Your task to perform on an android device: add a contact in the contacts app Image 0: 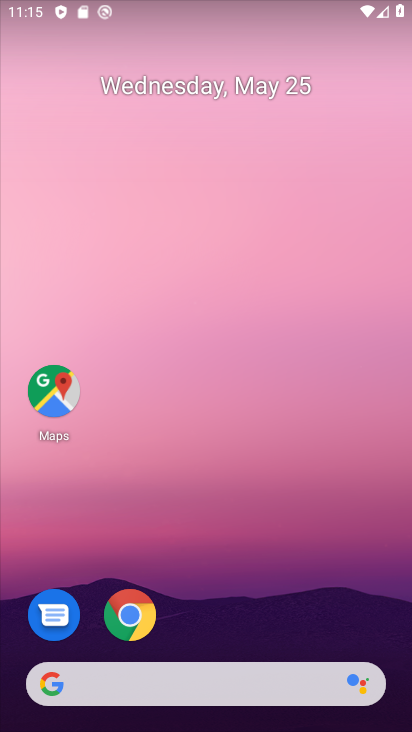
Step 0: drag from (221, 599) to (184, 29)
Your task to perform on an android device: add a contact in the contacts app Image 1: 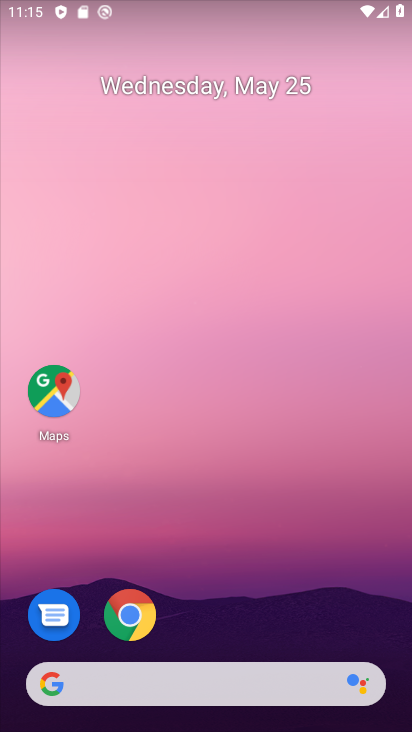
Step 1: drag from (185, 559) to (201, 0)
Your task to perform on an android device: add a contact in the contacts app Image 2: 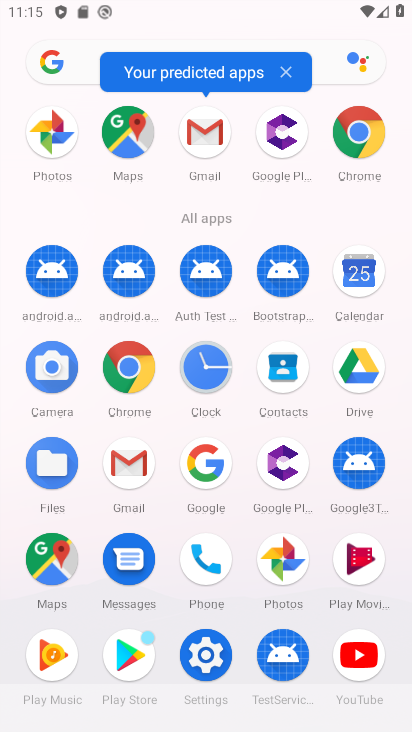
Step 2: drag from (235, 611) to (168, 19)
Your task to perform on an android device: add a contact in the contacts app Image 3: 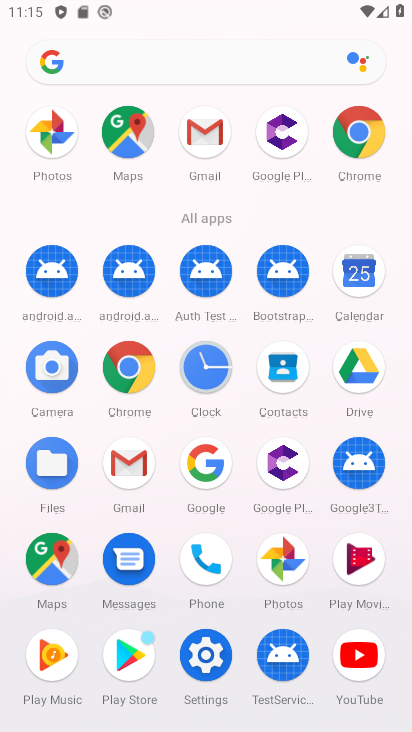
Step 3: click (208, 570)
Your task to perform on an android device: add a contact in the contacts app Image 4: 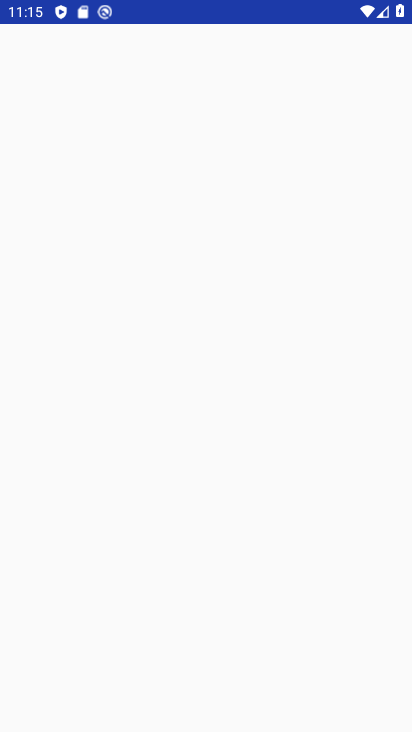
Step 4: click (208, 570)
Your task to perform on an android device: add a contact in the contacts app Image 5: 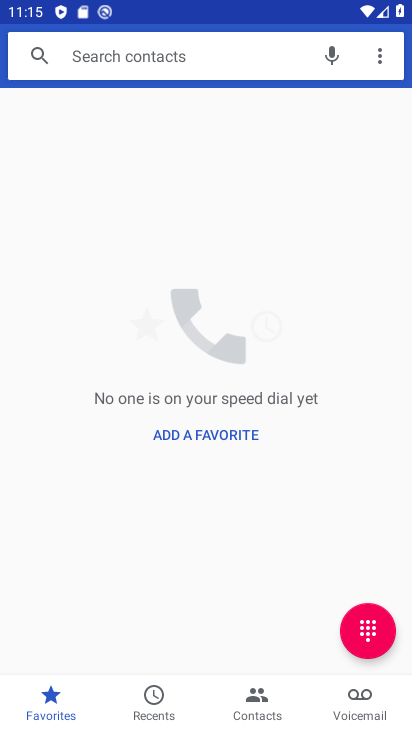
Step 5: click (249, 688)
Your task to perform on an android device: add a contact in the contacts app Image 6: 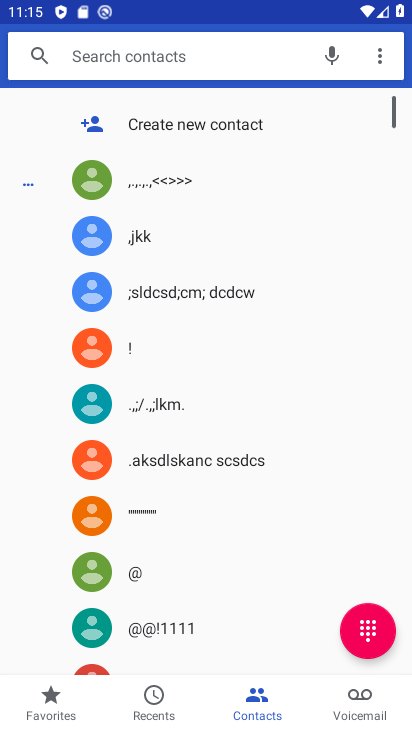
Step 6: click (249, 688)
Your task to perform on an android device: add a contact in the contacts app Image 7: 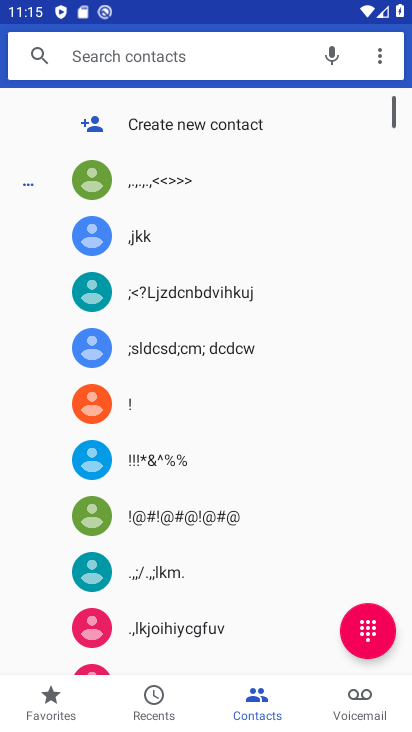
Step 7: click (144, 107)
Your task to perform on an android device: add a contact in the contacts app Image 8: 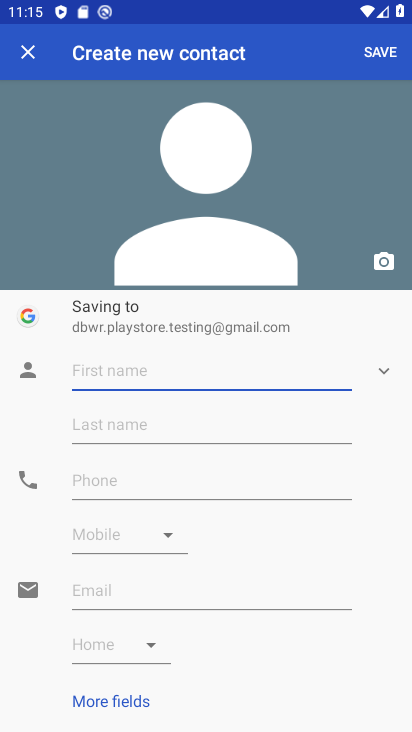
Step 8: click (149, 123)
Your task to perform on an android device: add a contact in the contacts app Image 9: 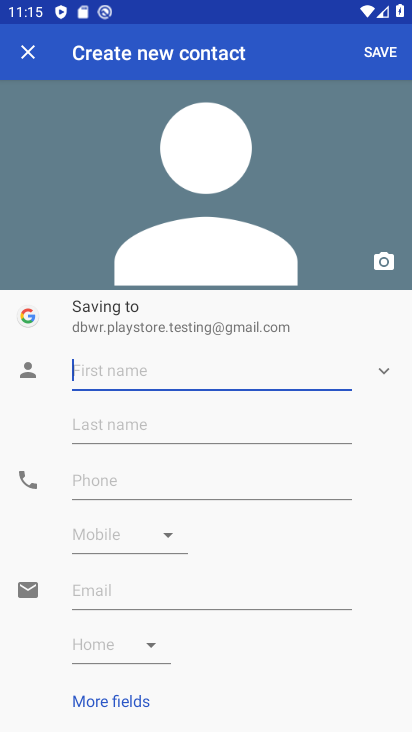
Step 9: click (149, 123)
Your task to perform on an android device: add a contact in the contacts app Image 10: 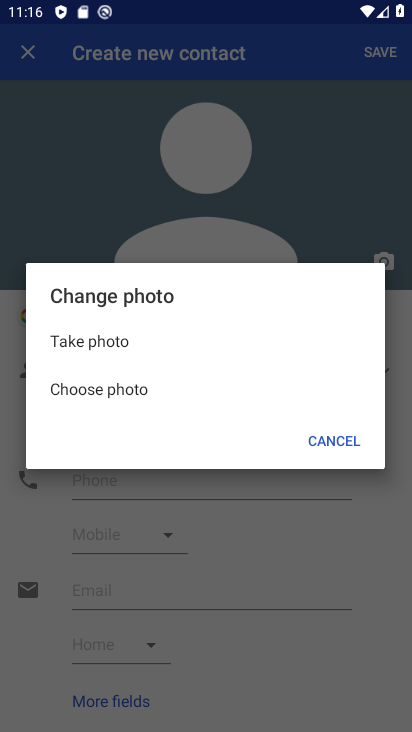
Step 10: click (372, 448)
Your task to perform on an android device: add a contact in the contacts app Image 11: 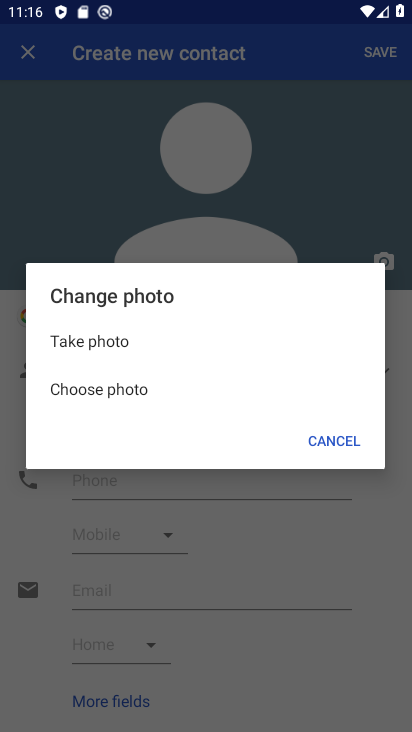
Step 11: click (354, 446)
Your task to perform on an android device: add a contact in the contacts app Image 12: 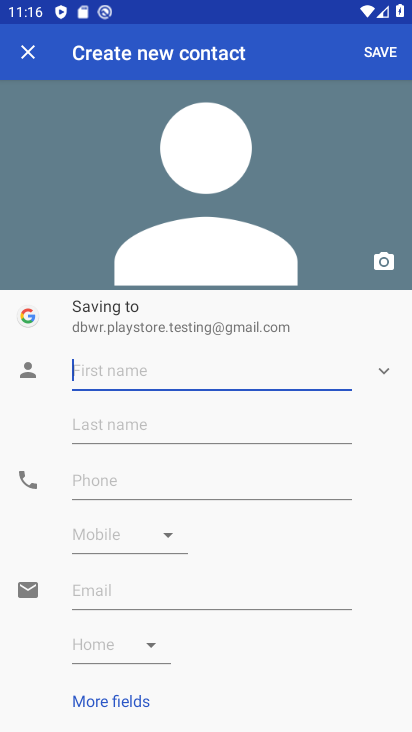
Step 12: click (344, 439)
Your task to perform on an android device: add a contact in the contacts app Image 13: 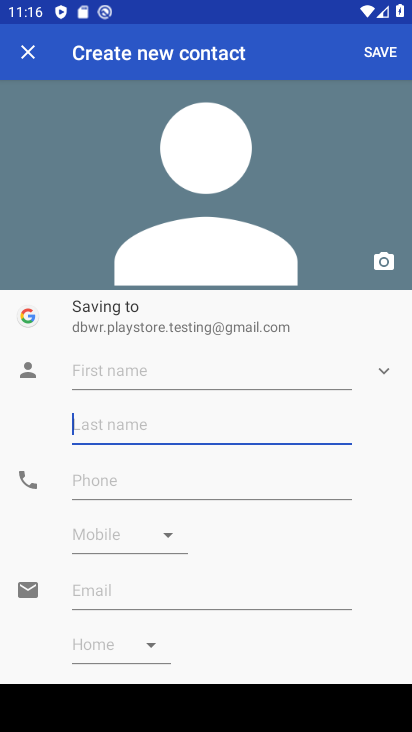
Step 13: click (266, 376)
Your task to perform on an android device: add a contact in the contacts app Image 14: 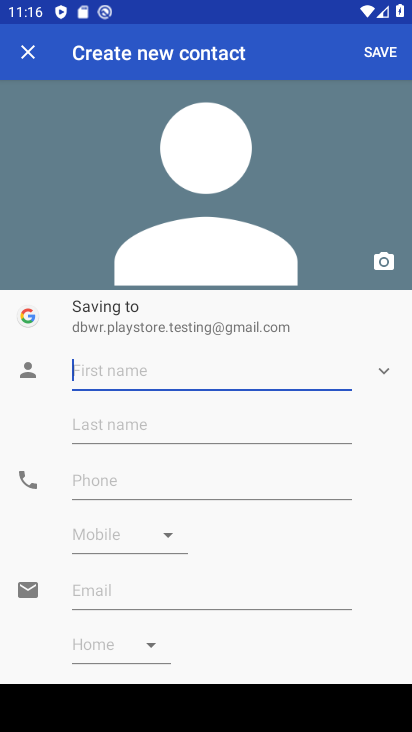
Step 14: type "kim"
Your task to perform on an android device: add a contact in the contacts app Image 15: 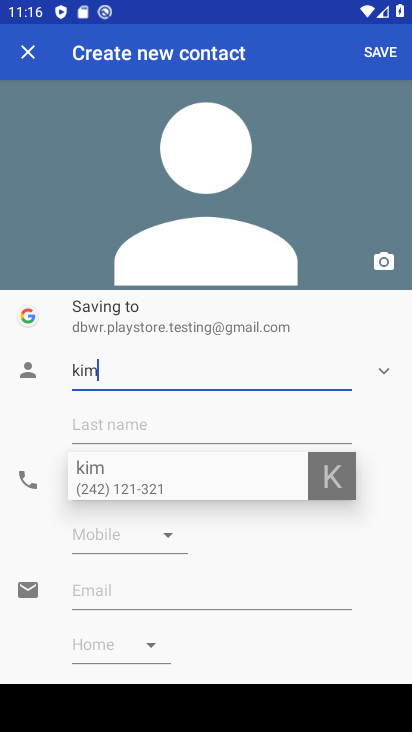
Step 15: click (269, 494)
Your task to perform on an android device: add a contact in the contacts app Image 16: 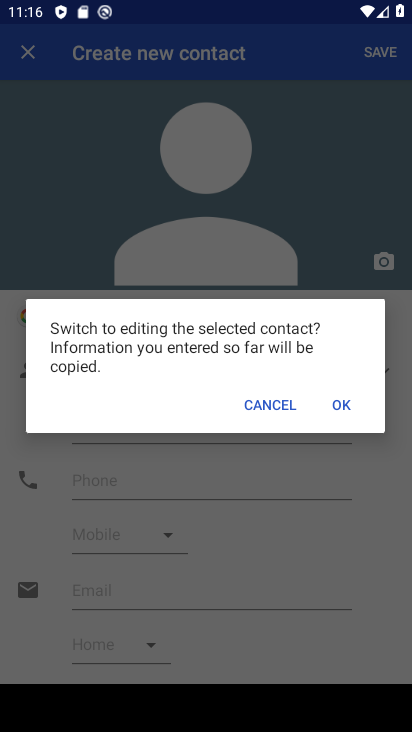
Step 16: click (371, 40)
Your task to perform on an android device: add a contact in the contacts app Image 17: 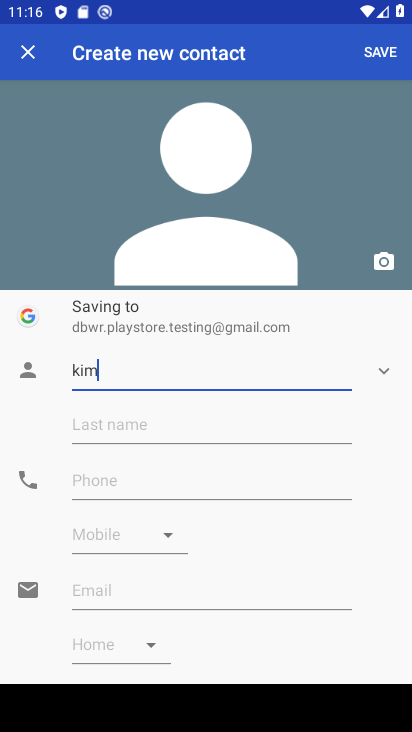
Step 17: task complete